Your task to perform on an android device: turn on showing notifications on the lock screen Image 0: 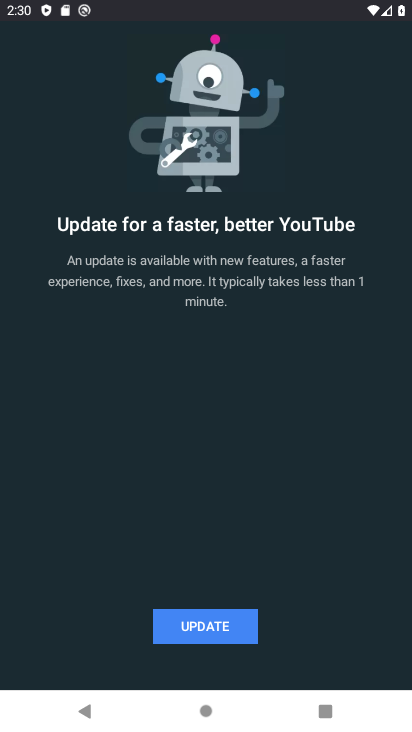
Step 0: press home button
Your task to perform on an android device: turn on showing notifications on the lock screen Image 1: 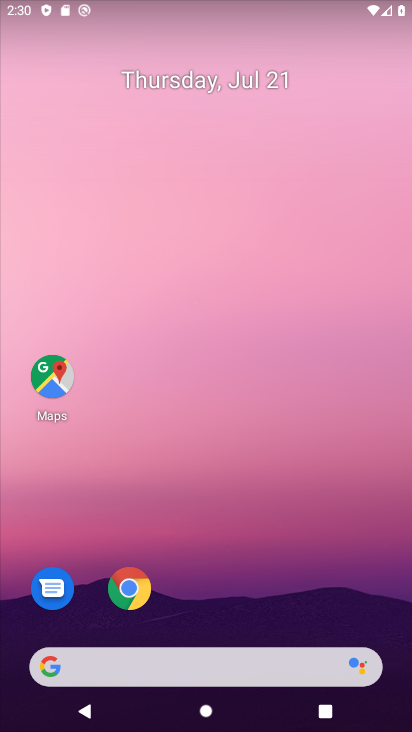
Step 1: drag from (200, 651) to (313, 59)
Your task to perform on an android device: turn on showing notifications on the lock screen Image 2: 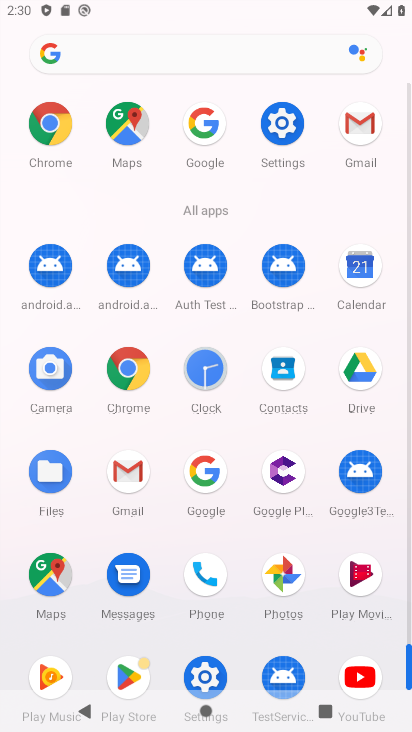
Step 2: click (277, 134)
Your task to perform on an android device: turn on showing notifications on the lock screen Image 3: 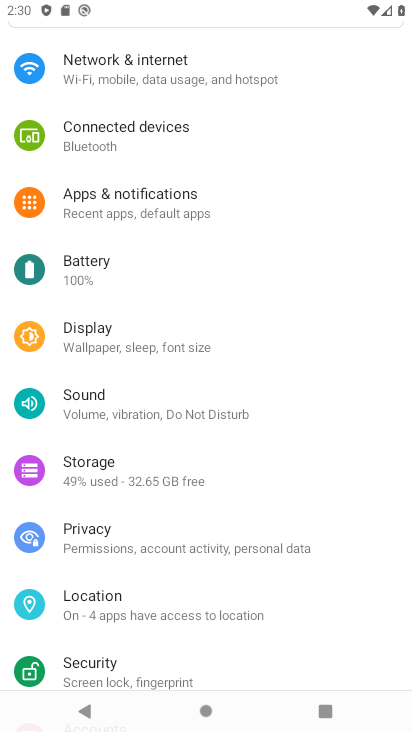
Step 3: drag from (257, 234) to (200, 552)
Your task to perform on an android device: turn on showing notifications on the lock screen Image 4: 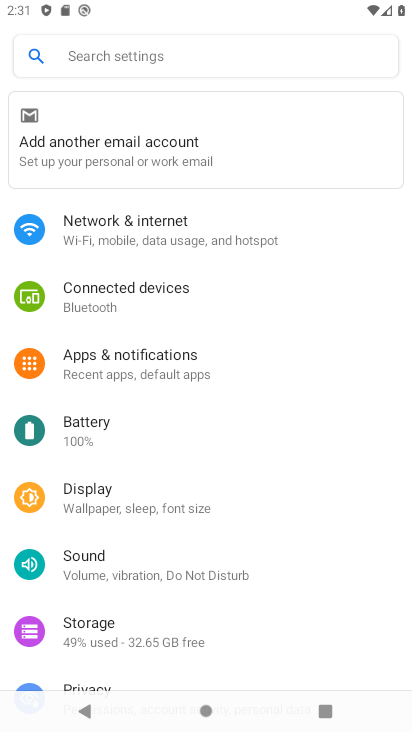
Step 4: click (188, 372)
Your task to perform on an android device: turn on showing notifications on the lock screen Image 5: 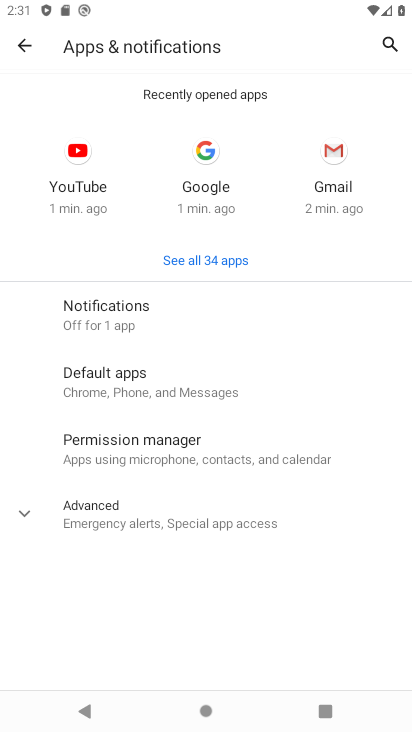
Step 5: click (109, 310)
Your task to perform on an android device: turn on showing notifications on the lock screen Image 6: 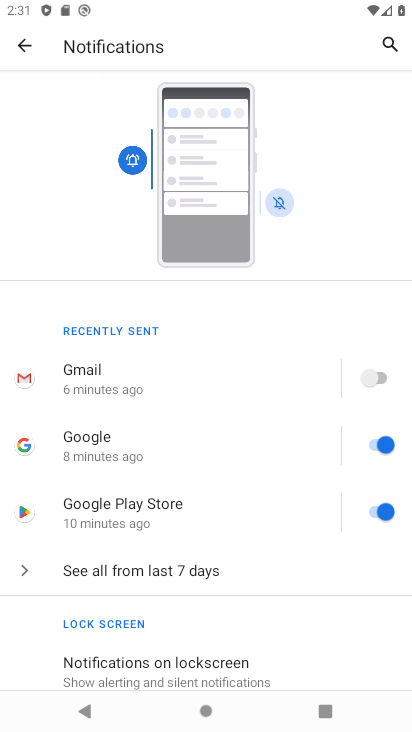
Step 6: drag from (119, 538) to (151, 130)
Your task to perform on an android device: turn on showing notifications on the lock screen Image 7: 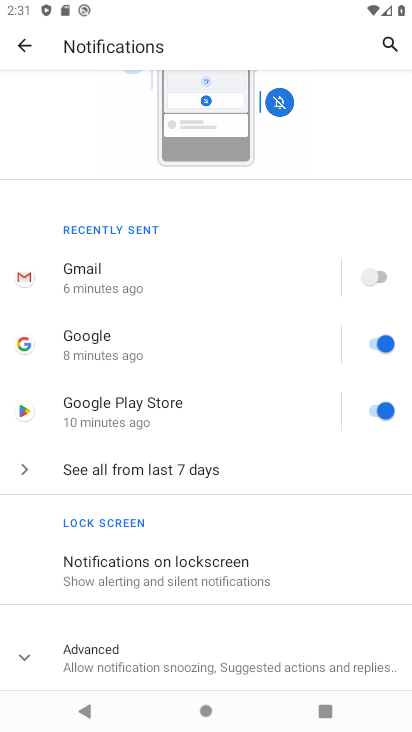
Step 7: click (213, 551)
Your task to perform on an android device: turn on showing notifications on the lock screen Image 8: 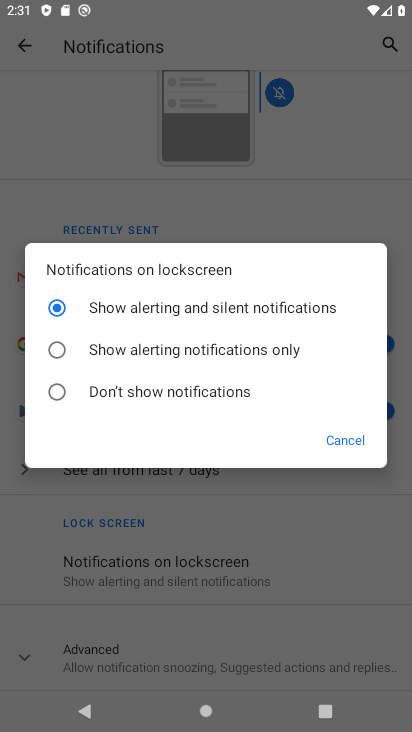
Step 8: task complete